Your task to perform on an android device: Open the Play Movies app and select the watchlist tab. Image 0: 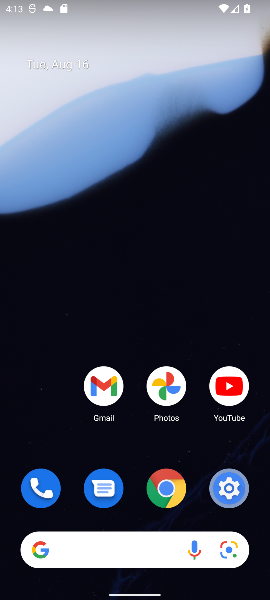
Step 0: drag from (29, 425) to (61, 260)
Your task to perform on an android device: Open the Play Movies app and select the watchlist tab. Image 1: 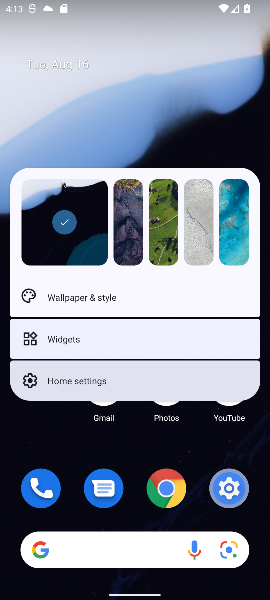
Step 1: click (67, 433)
Your task to perform on an android device: Open the Play Movies app and select the watchlist tab. Image 2: 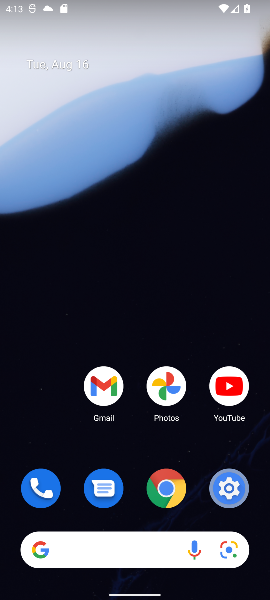
Step 2: task complete